Your task to perform on an android device: Open Yahoo.com Image 0: 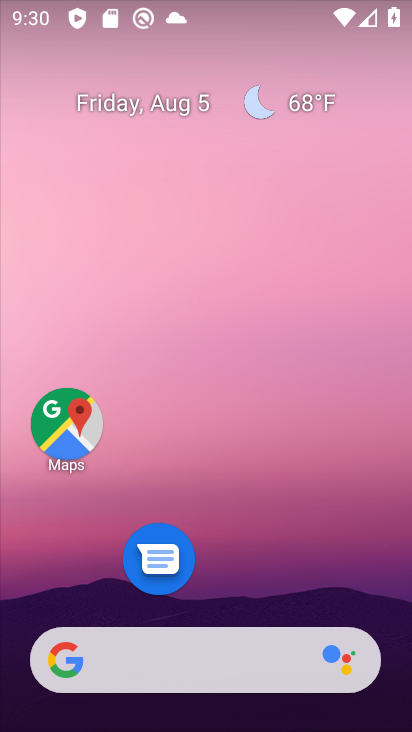
Step 0: drag from (229, 655) to (255, 0)
Your task to perform on an android device: Open Yahoo.com Image 1: 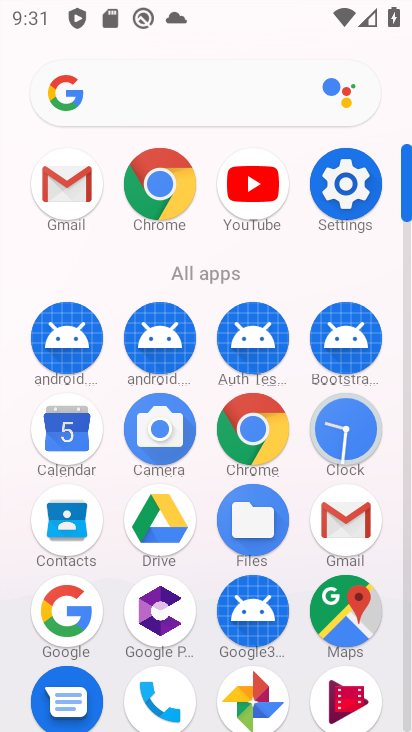
Step 1: click (183, 197)
Your task to perform on an android device: Open Yahoo.com Image 2: 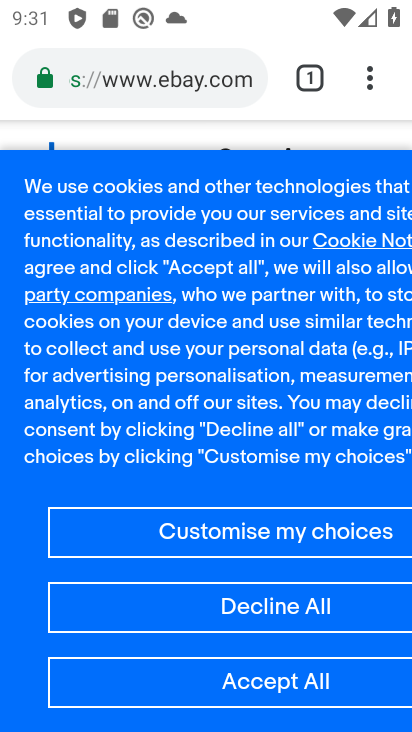
Step 2: click (231, 78)
Your task to perform on an android device: Open Yahoo.com Image 3: 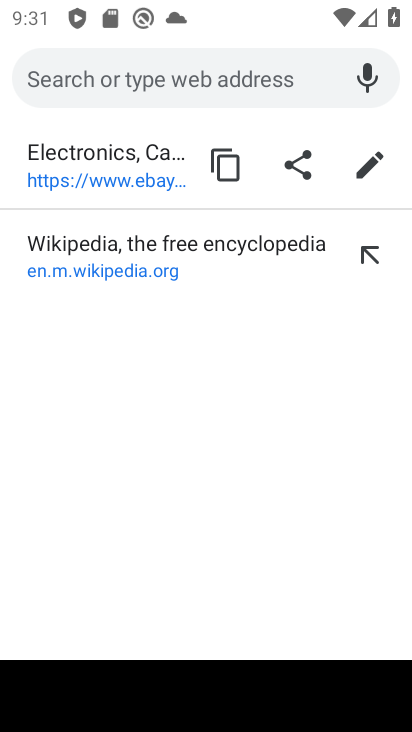
Step 3: type "yahoo"
Your task to perform on an android device: Open Yahoo.com Image 4: 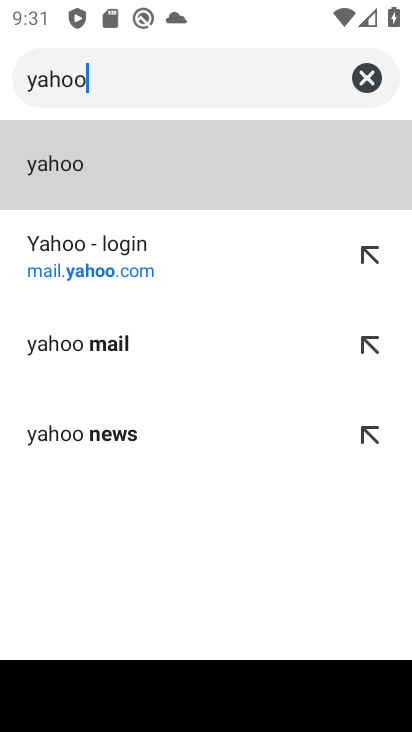
Step 4: click (118, 270)
Your task to perform on an android device: Open Yahoo.com Image 5: 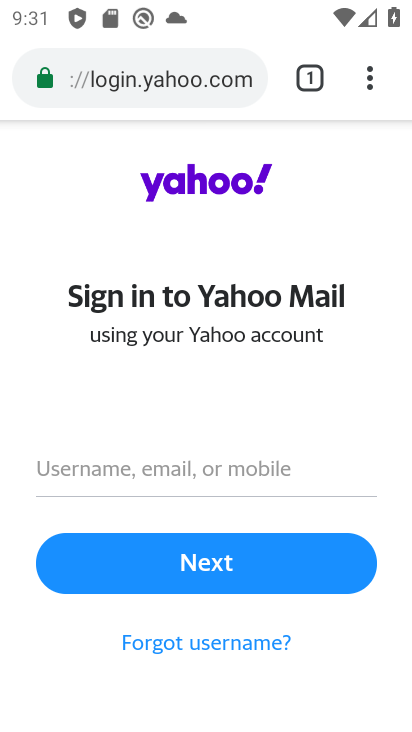
Step 5: task complete